Your task to perform on an android device: Go to Google Image 0: 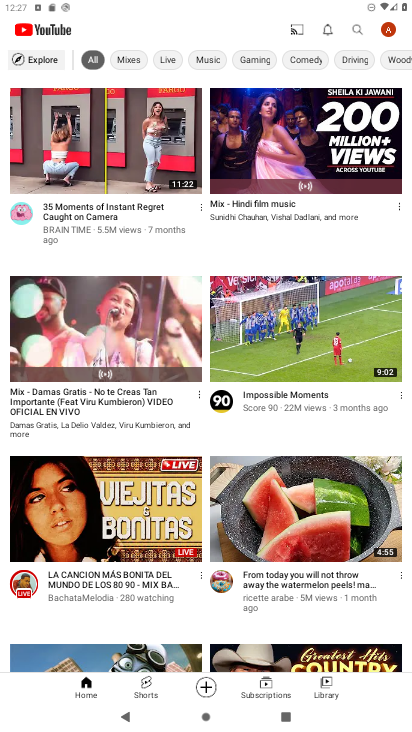
Step 0: press home button
Your task to perform on an android device: Go to Google Image 1: 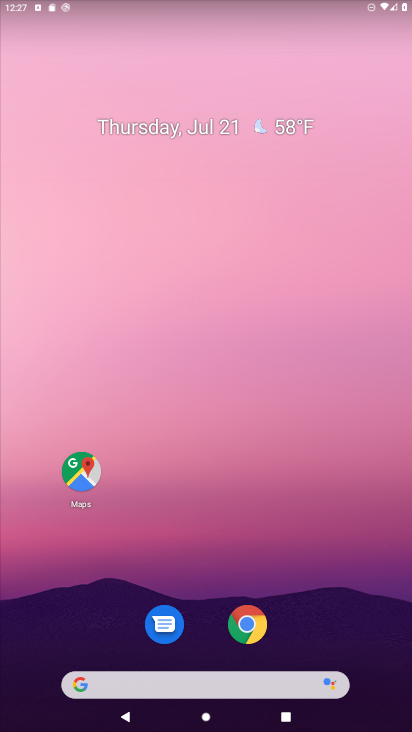
Step 1: drag from (200, 556) to (234, 106)
Your task to perform on an android device: Go to Google Image 2: 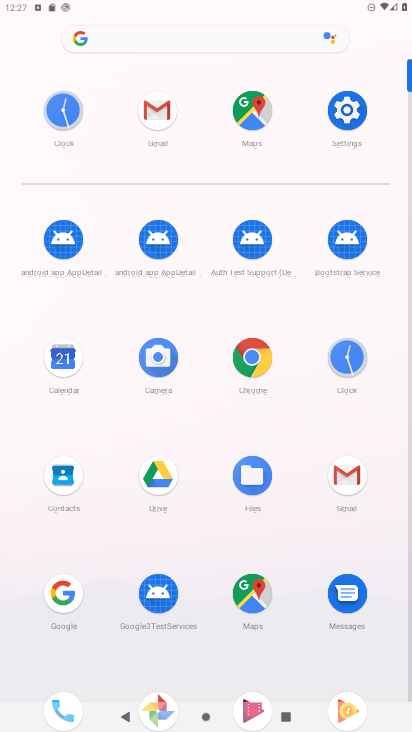
Step 2: click (52, 616)
Your task to perform on an android device: Go to Google Image 3: 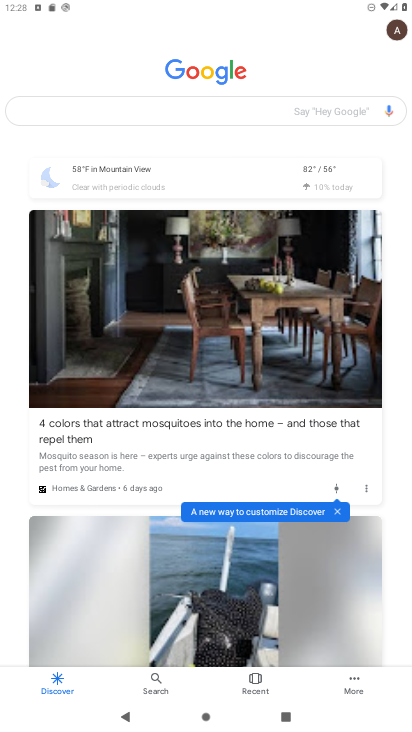
Step 3: task complete